Your task to perform on an android device: Open Maps and search for coffee Image 0: 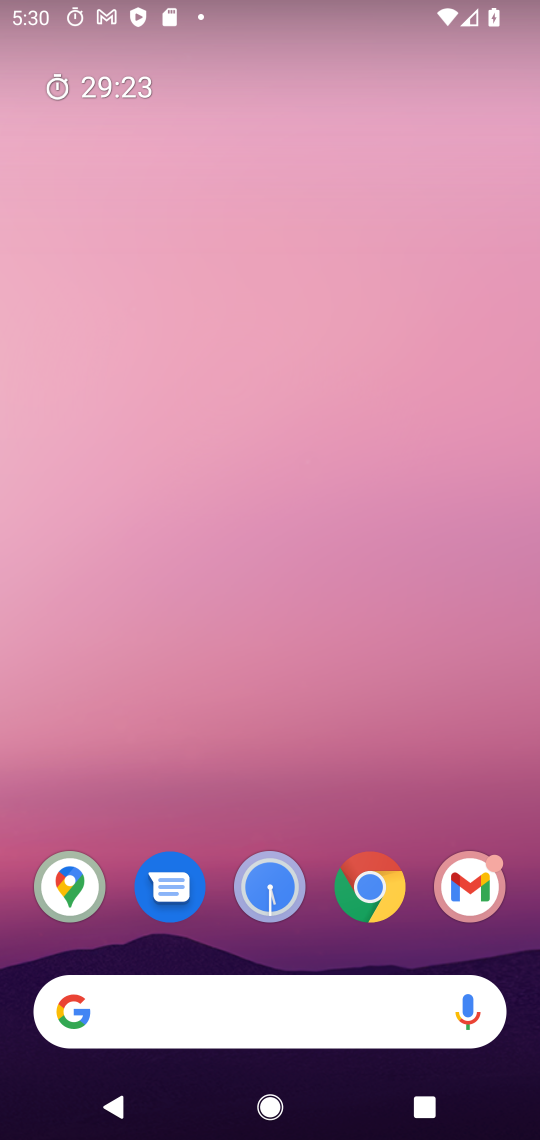
Step 0: click (83, 873)
Your task to perform on an android device: Open Maps and search for coffee Image 1: 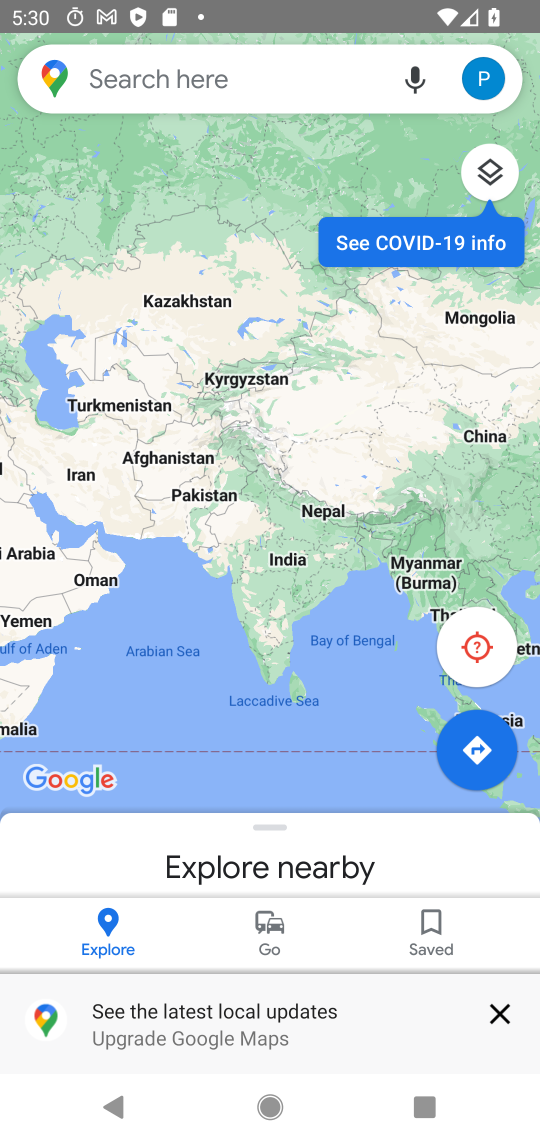
Step 1: click (221, 79)
Your task to perform on an android device: Open Maps and search for coffee Image 2: 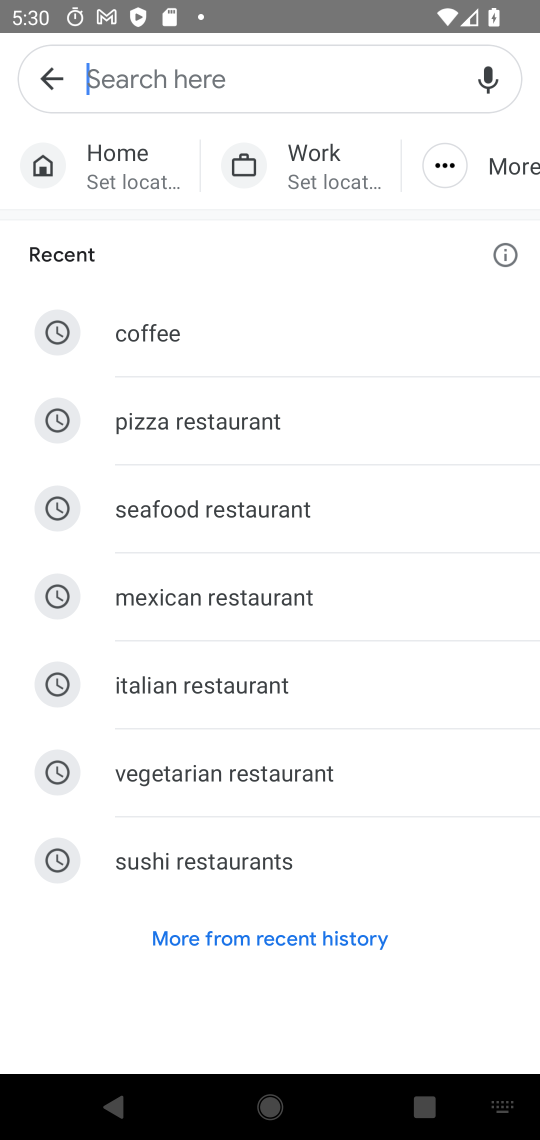
Step 2: type "coffee"
Your task to perform on an android device: Open Maps and search for coffee Image 3: 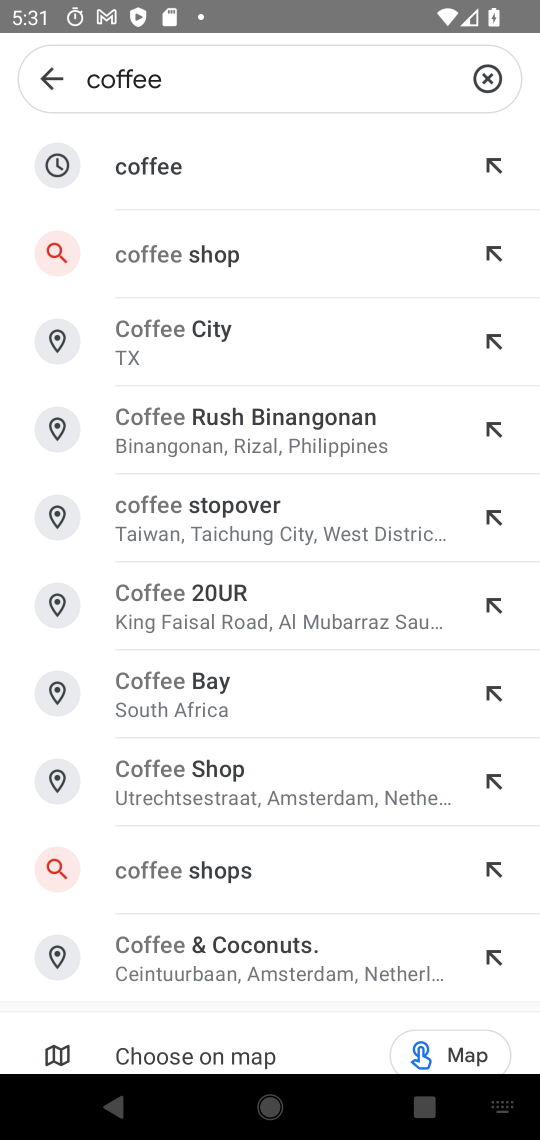
Step 3: click (153, 167)
Your task to perform on an android device: Open Maps and search for coffee Image 4: 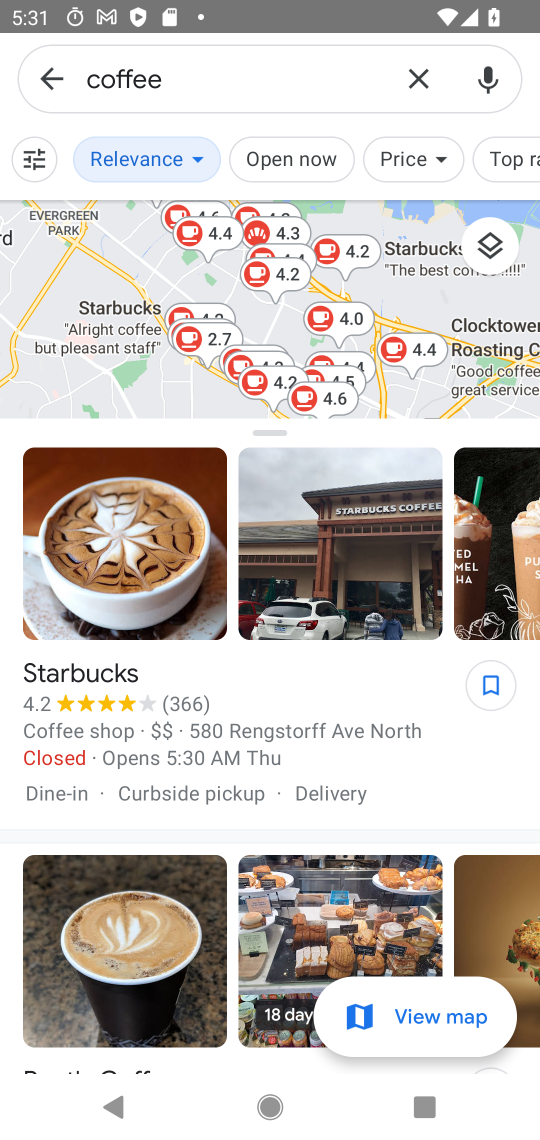
Step 4: task complete